Your task to perform on an android device: open a new tab in the chrome app Image 0: 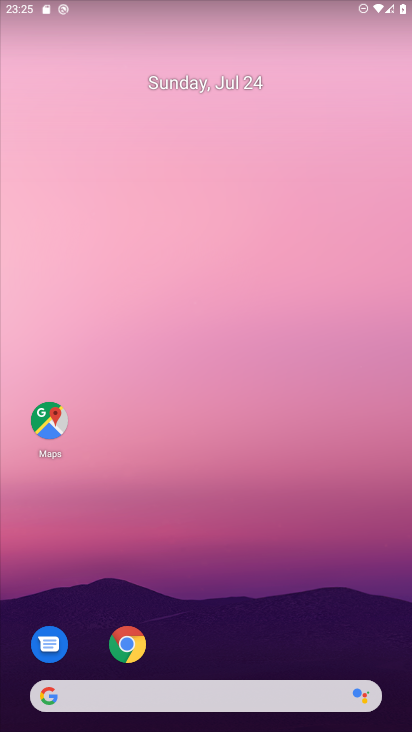
Step 0: click (128, 642)
Your task to perform on an android device: open a new tab in the chrome app Image 1: 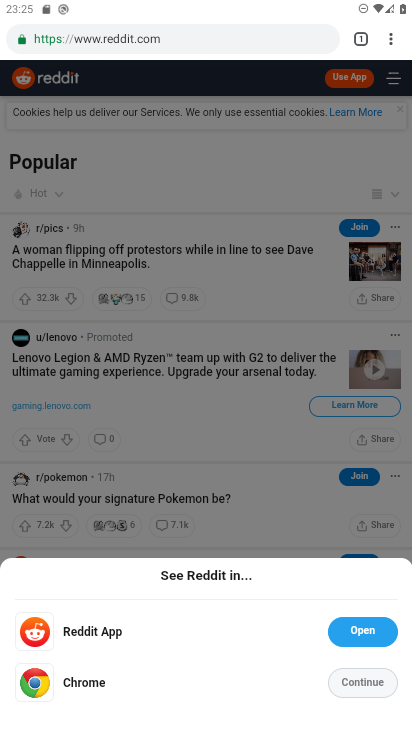
Step 1: click (392, 42)
Your task to perform on an android device: open a new tab in the chrome app Image 2: 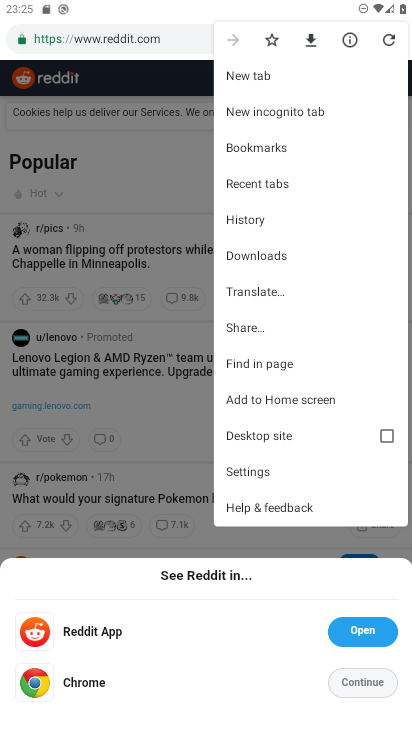
Step 2: click (242, 72)
Your task to perform on an android device: open a new tab in the chrome app Image 3: 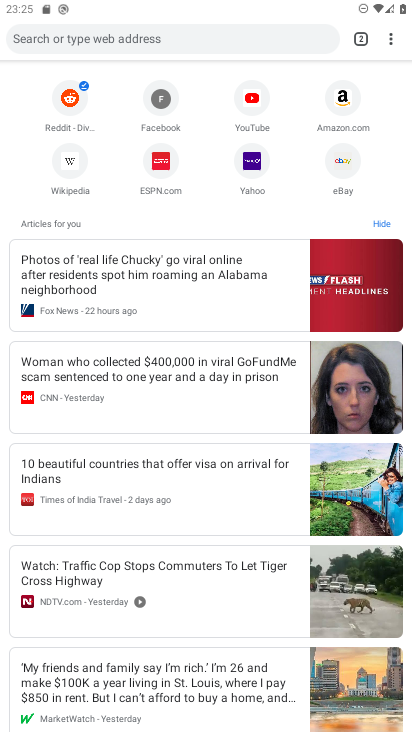
Step 3: task complete